Your task to perform on an android device: empty trash in the gmail app Image 0: 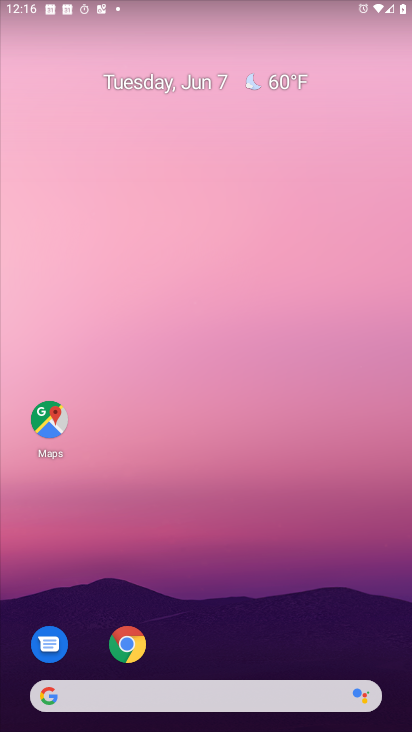
Step 0: drag from (142, 726) to (153, 140)
Your task to perform on an android device: empty trash in the gmail app Image 1: 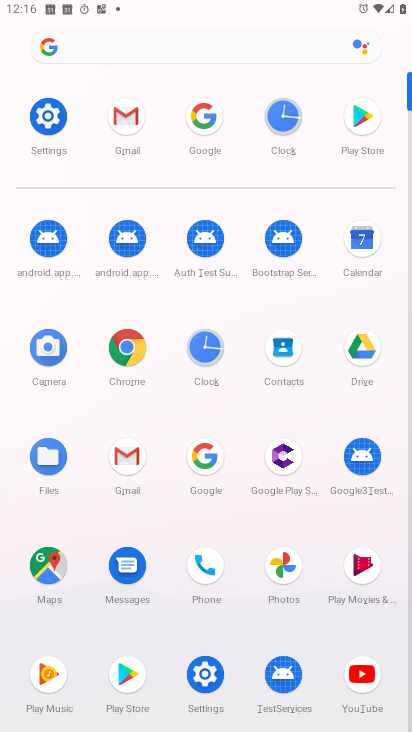
Step 1: click (121, 465)
Your task to perform on an android device: empty trash in the gmail app Image 2: 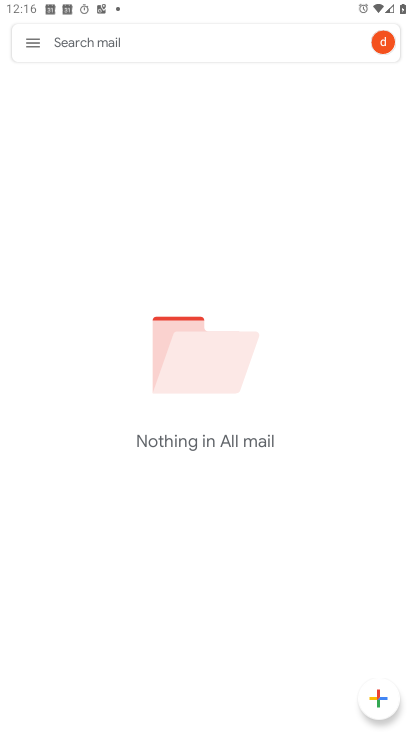
Step 2: click (32, 47)
Your task to perform on an android device: empty trash in the gmail app Image 3: 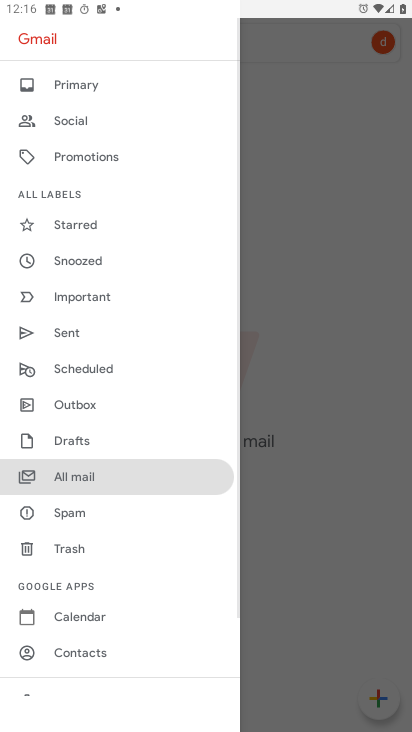
Step 3: click (77, 550)
Your task to perform on an android device: empty trash in the gmail app Image 4: 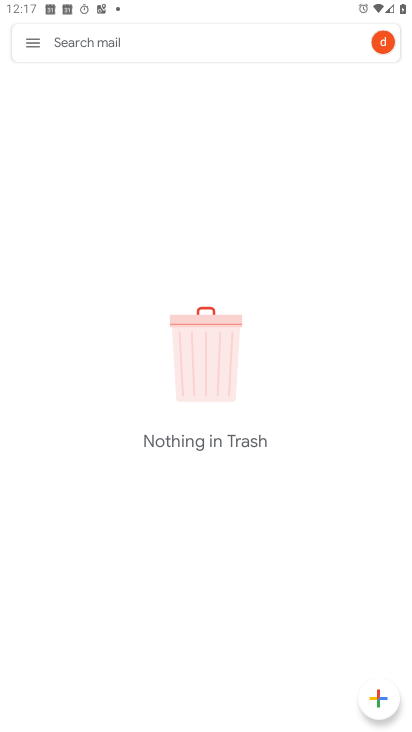
Step 4: task complete